Your task to perform on an android device: Open Chrome and go to the settings page Image 0: 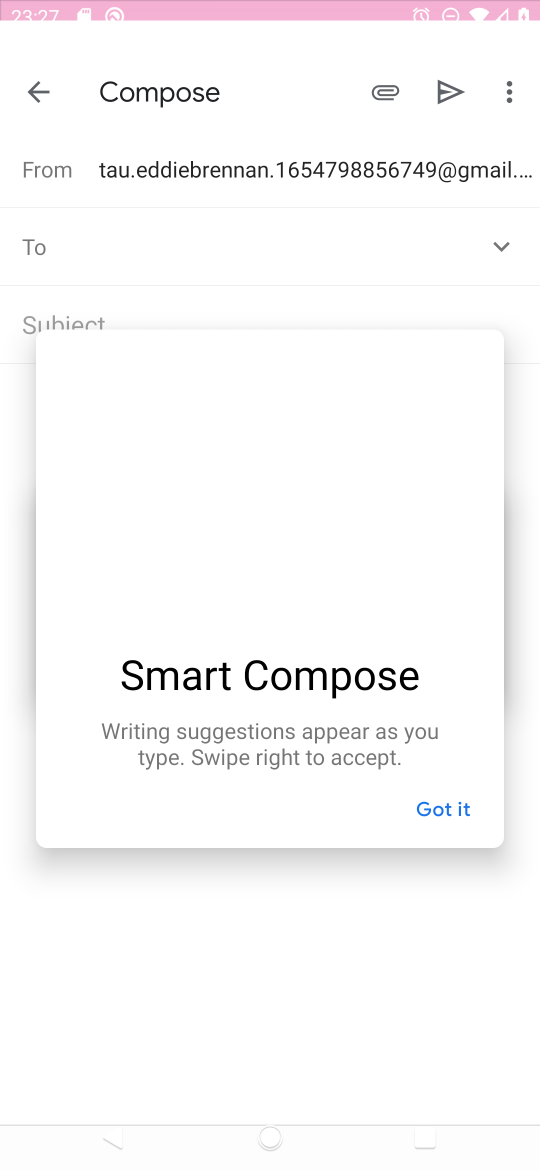
Step 0: press home button
Your task to perform on an android device: Open Chrome and go to the settings page Image 1: 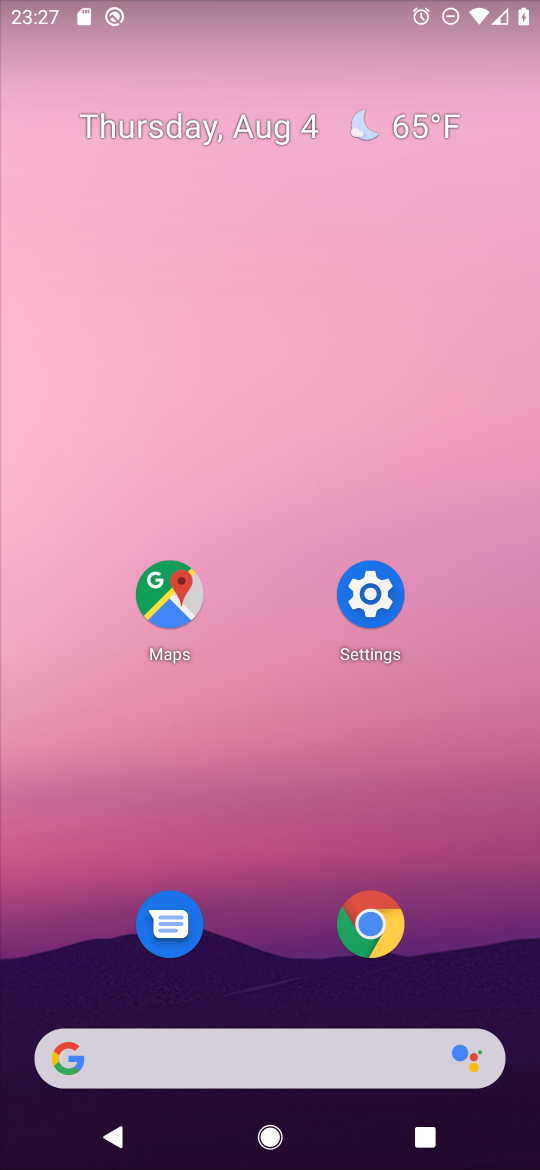
Step 1: click (373, 935)
Your task to perform on an android device: Open Chrome and go to the settings page Image 2: 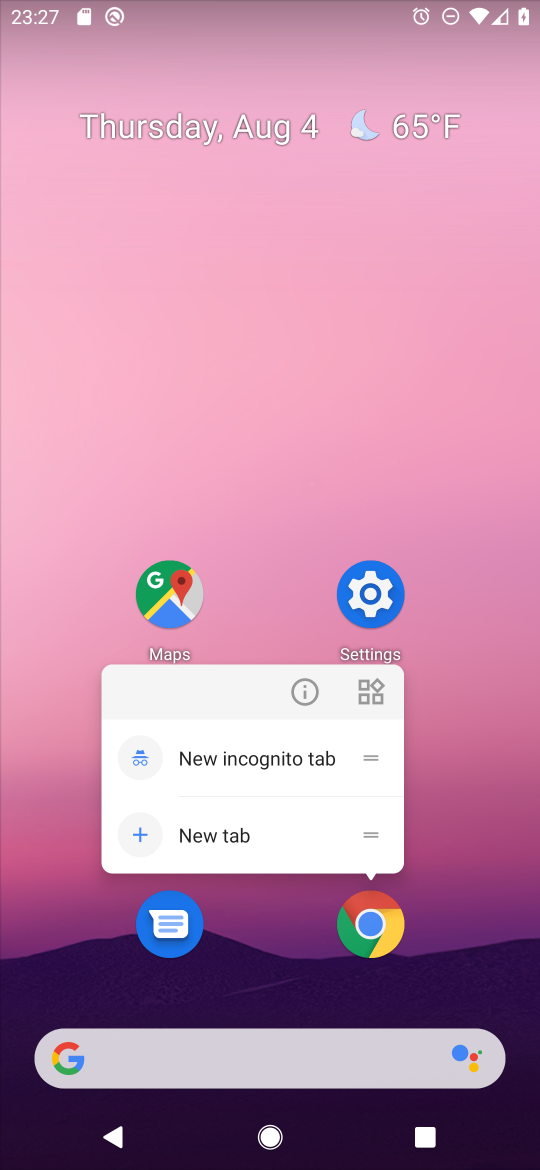
Step 2: click (373, 935)
Your task to perform on an android device: Open Chrome and go to the settings page Image 3: 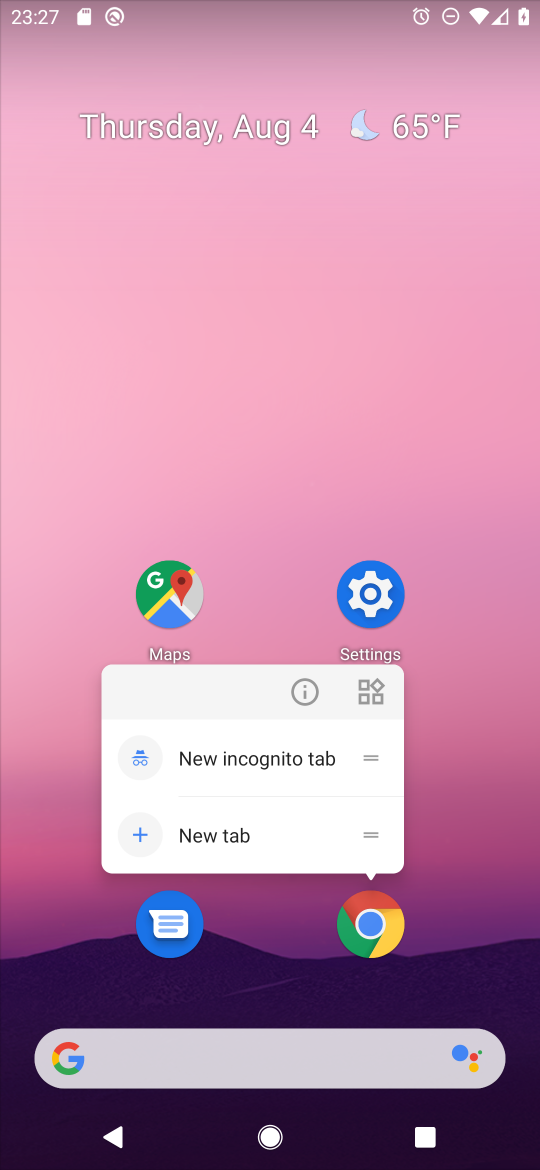
Step 3: click (373, 934)
Your task to perform on an android device: Open Chrome and go to the settings page Image 4: 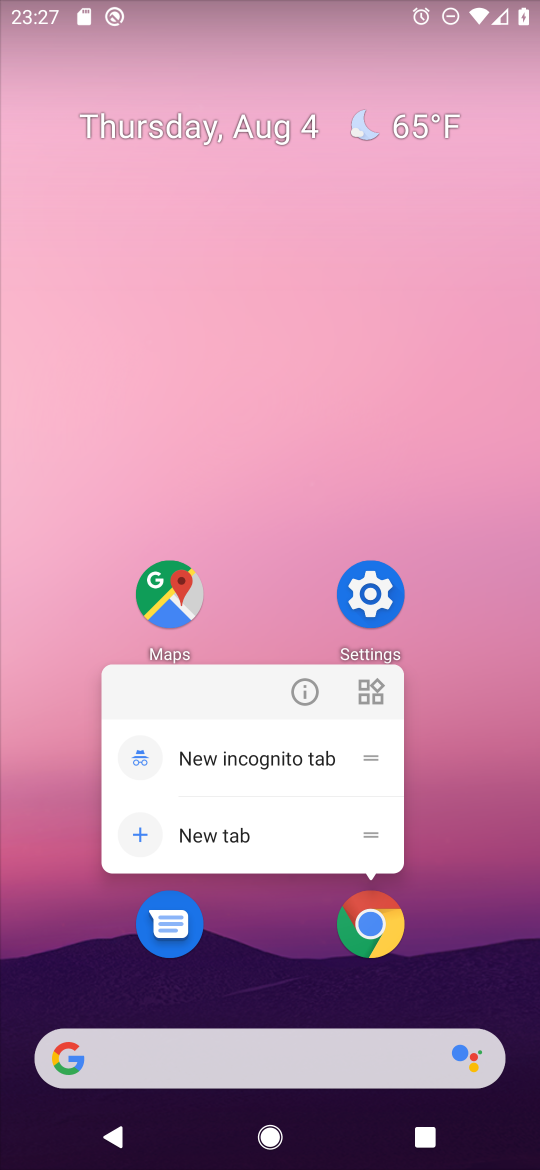
Step 4: click (373, 935)
Your task to perform on an android device: Open Chrome and go to the settings page Image 5: 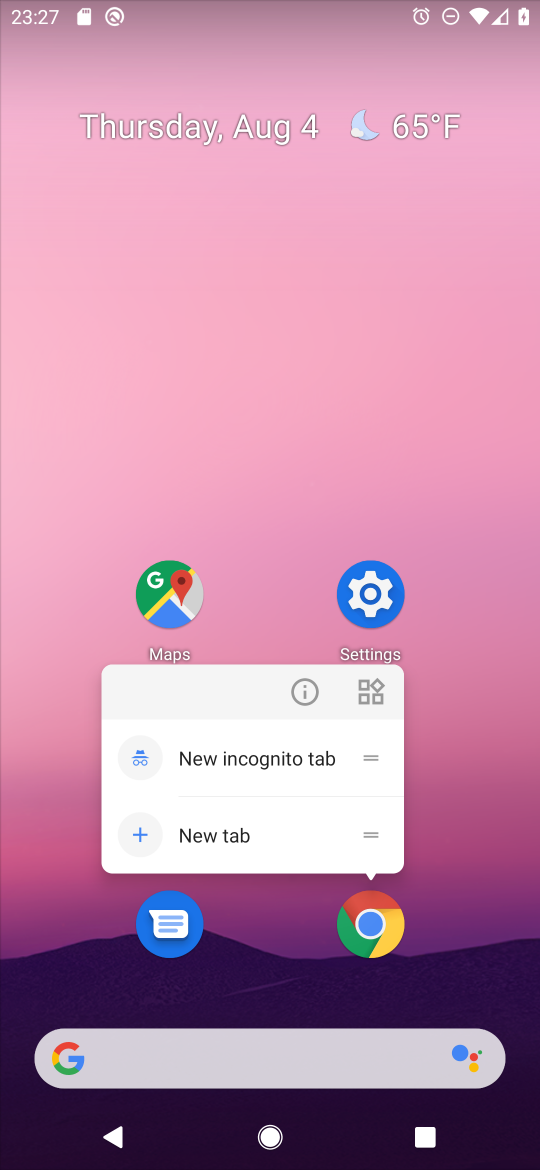
Step 5: click (379, 930)
Your task to perform on an android device: Open Chrome and go to the settings page Image 6: 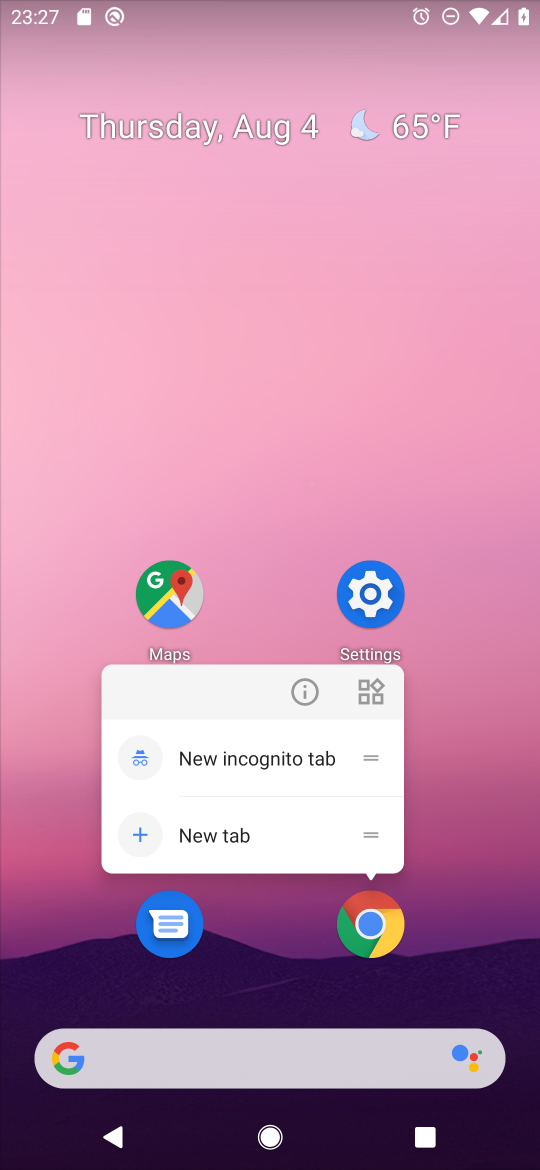
Step 6: click (384, 923)
Your task to perform on an android device: Open Chrome and go to the settings page Image 7: 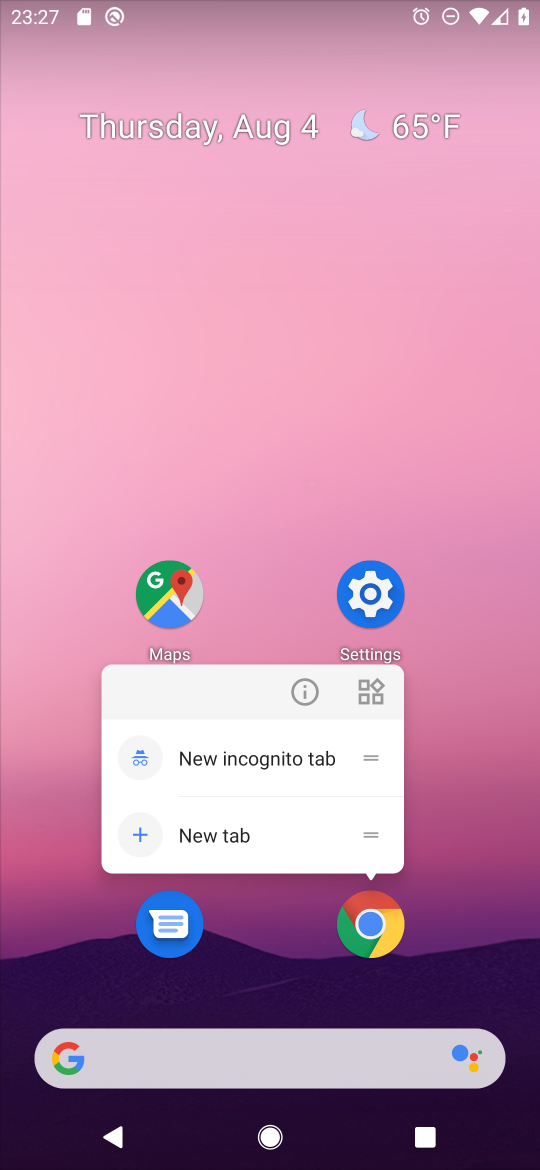
Step 7: click (368, 928)
Your task to perform on an android device: Open Chrome and go to the settings page Image 8: 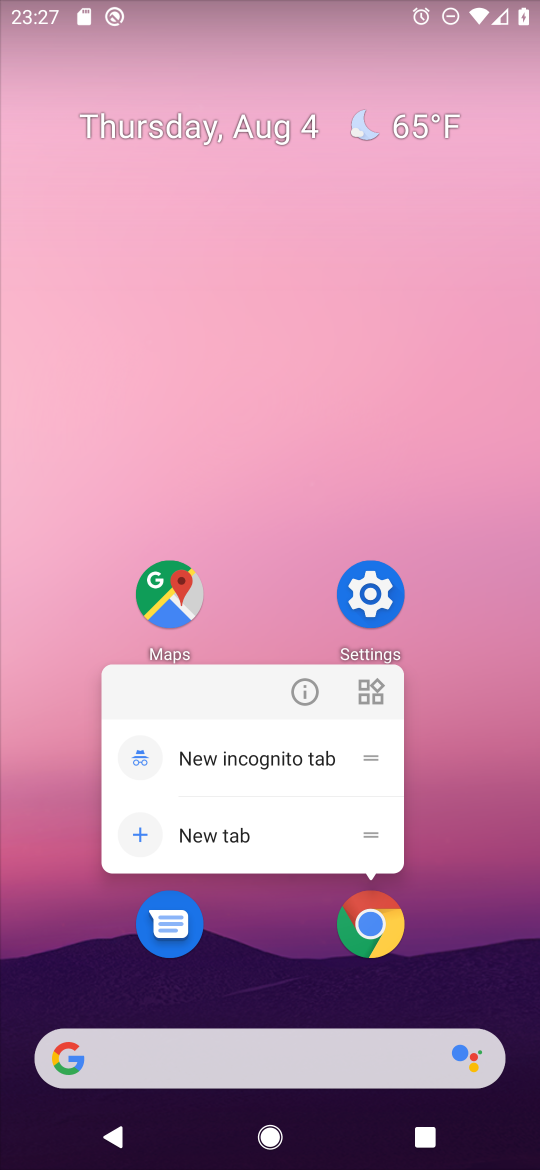
Step 8: click (368, 928)
Your task to perform on an android device: Open Chrome and go to the settings page Image 9: 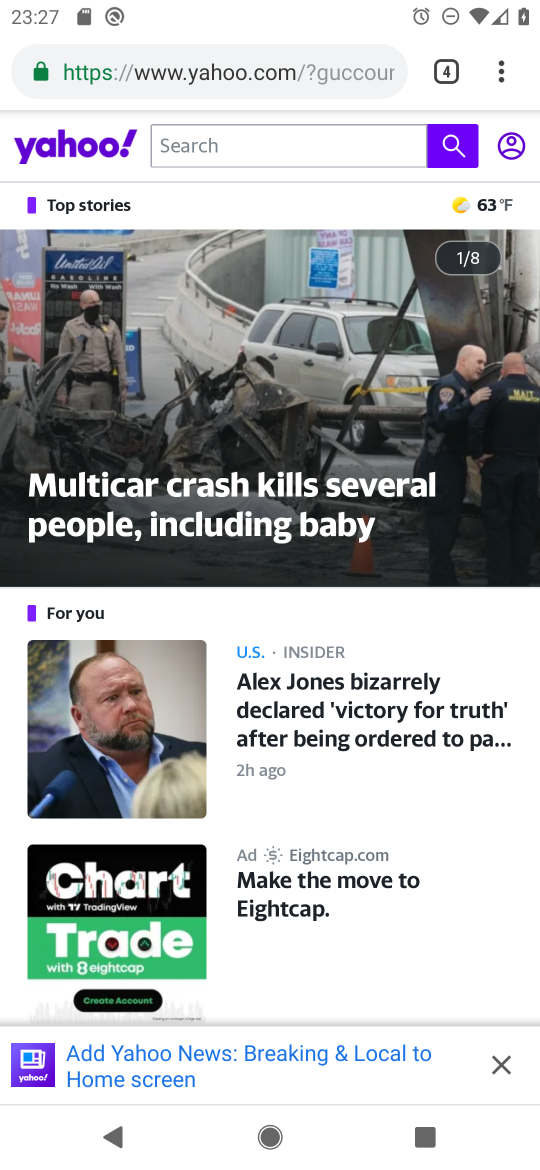
Step 9: task complete